Your task to perform on an android device: Go to Maps Image 0: 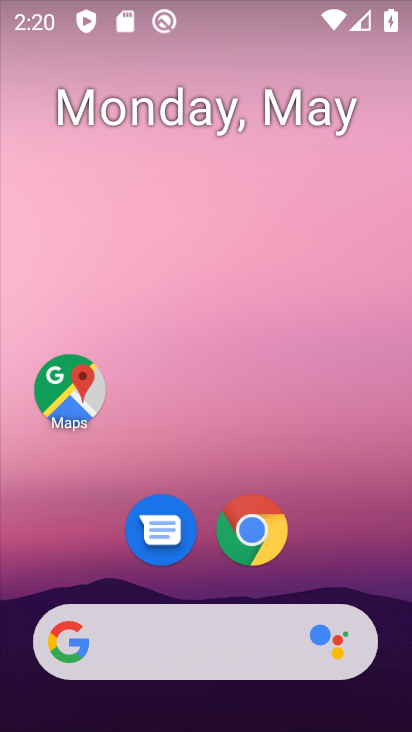
Step 0: click (72, 381)
Your task to perform on an android device: Go to Maps Image 1: 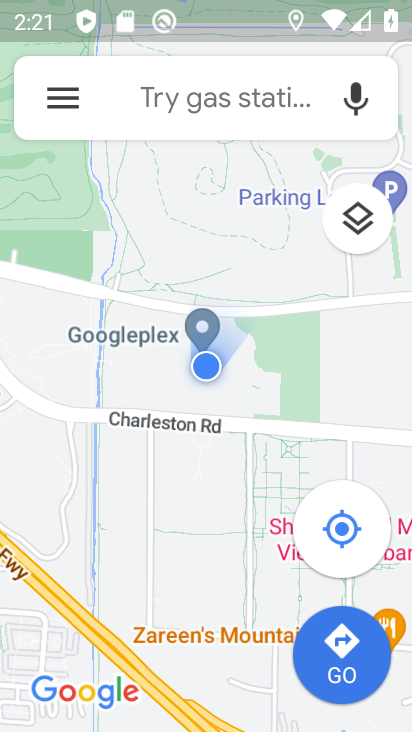
Step 1: task complete